Your task to perform on an android device: Open privacy settings Image 0: 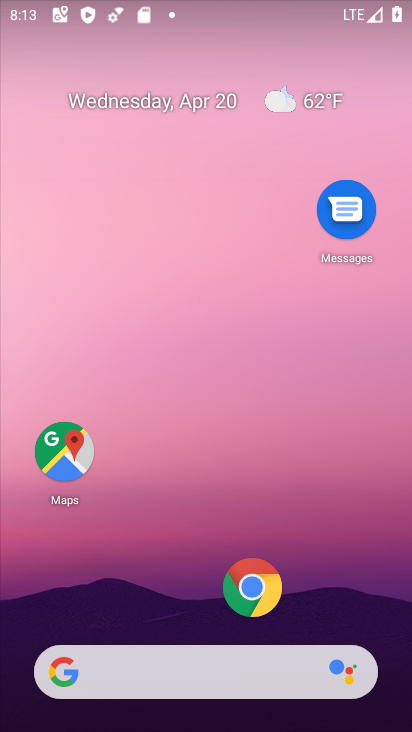
Step 0: drag from (153, 666) to (294, 132)
Your task to perform on an android device: Open privacy settings Image 1: 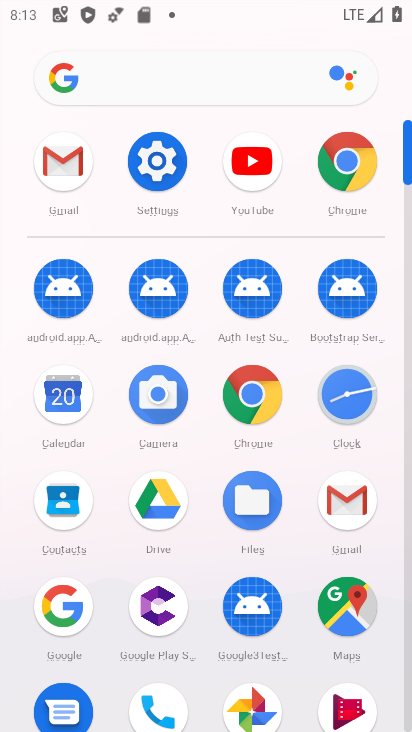
Step 1: click (158, 173)
Your task to perform on an android device: Open privacy settings Image 2: 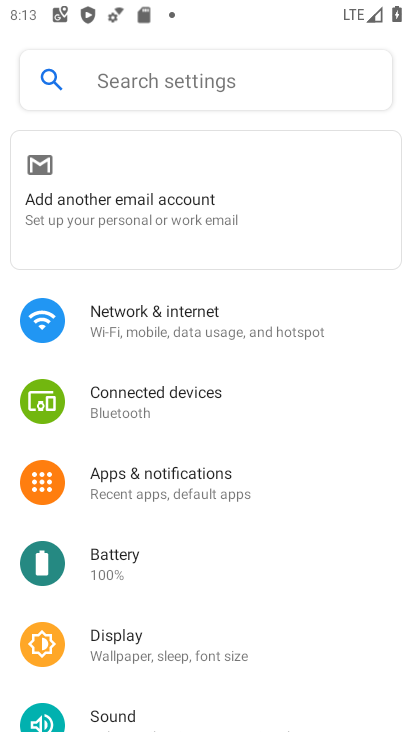
Step 2: drag from (220, 604) to (336, 186)
Your task to perform on an android device: Open privacy settings Image 3: 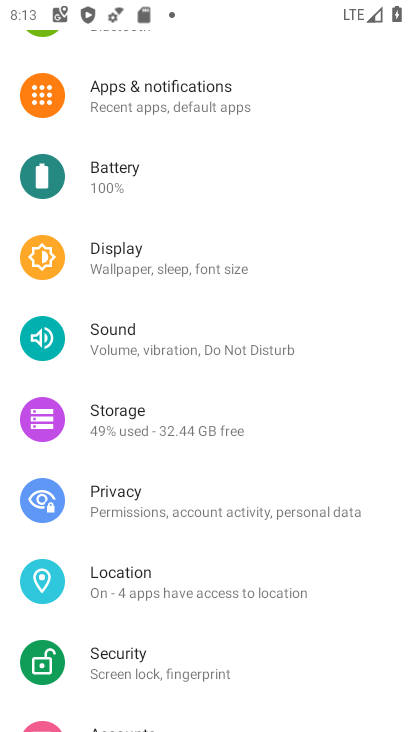
Step 3: click (103, 502)
Your task to perform on an android device: Open privacy settings Image 4: 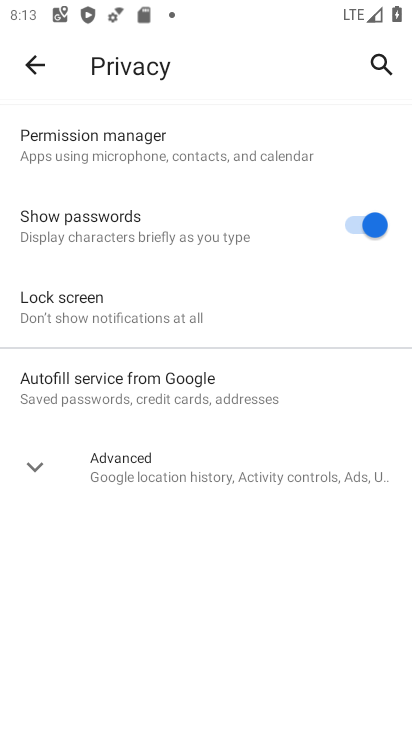
Step 4: task complete